Your task to perform on an android device: turn pop-ups off in chrome Image 0: 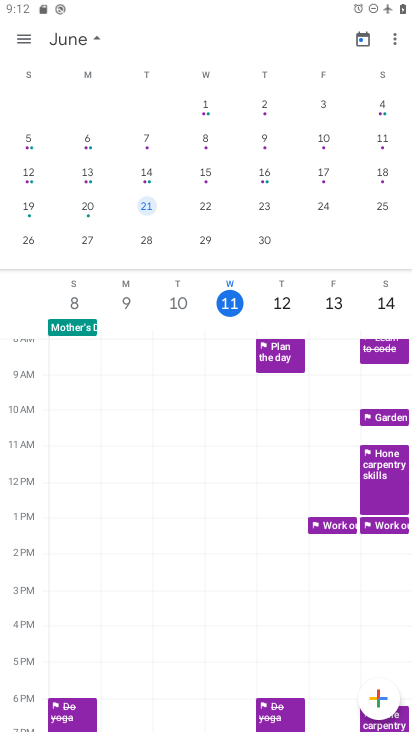
Step 0: press home button
Your task to perform on an android device: turn pop-ups off in chrome Image 1: 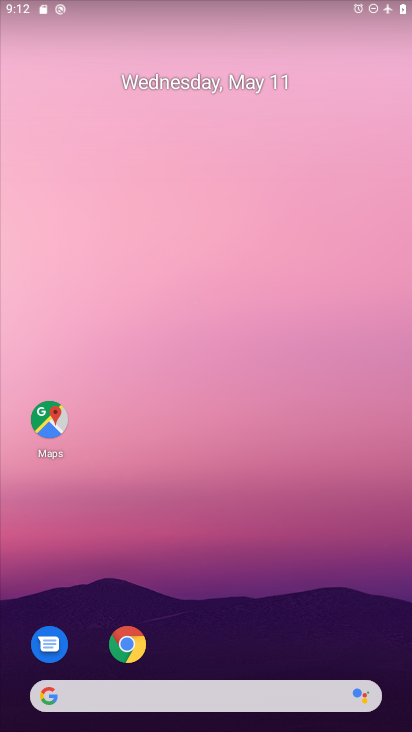
Step 1: click (122, 636)
Your task to perform on an android device: turn pop-ups off in chrome Image 2: 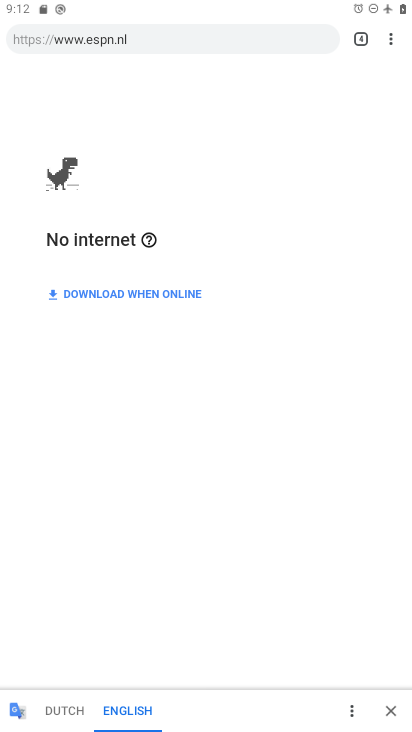
Step 2: click (392, 41)
Your task to perform on an android device: turn pop-ups off in chrome Image 3: 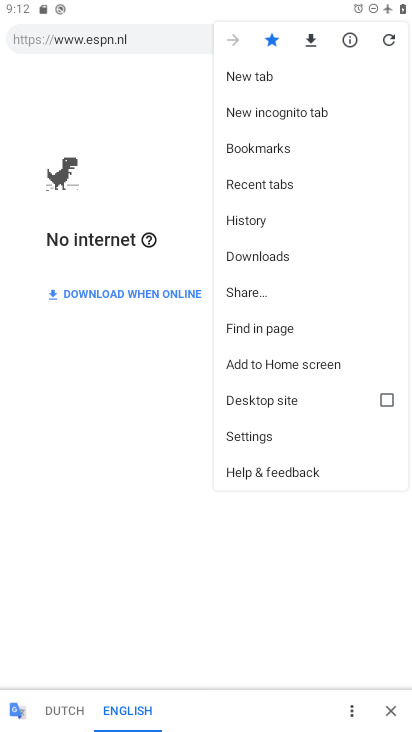
Step 3: click (259, 438)
Your task to perform on an android device: turn pop-ups off in chrome Image 4: 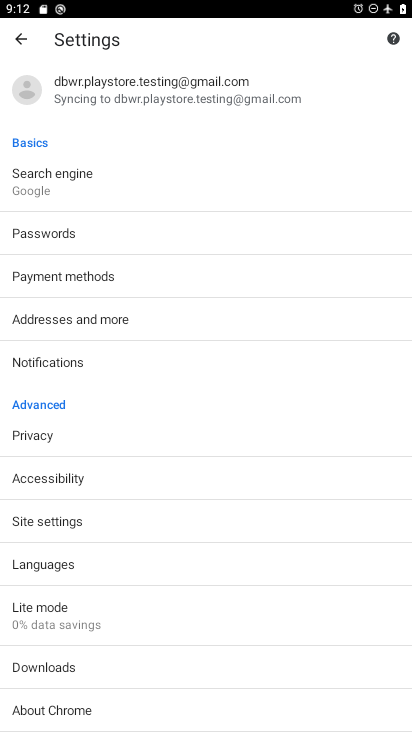
Step 4: click (67, 517)
Your task to perform on an android device: turn pop-ups off in chrome Image 5: 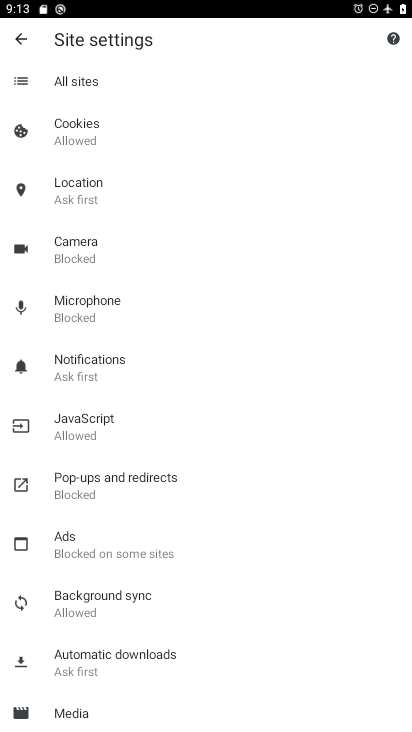
Step 5: click (93, 485)
Your task to perform on an android device: turn pop-ups off in chrome Image 6: 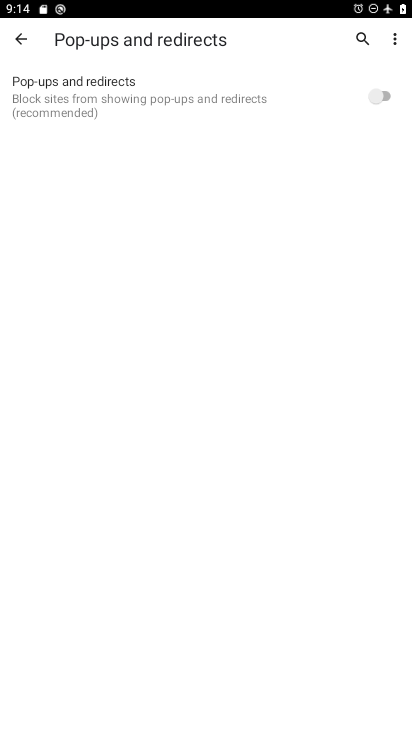
Step 6: task complete